Your task to perform on an android device: Is it going to rain today? Image 0: 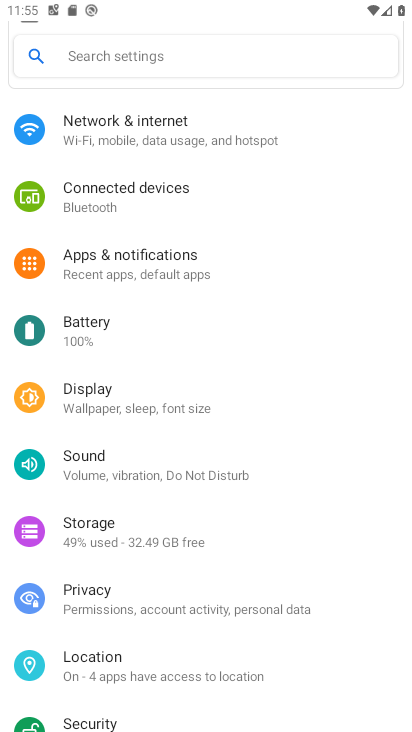
Step 0: press home button
Your task to perform on an android device: Is it going to rain today? Image 1: 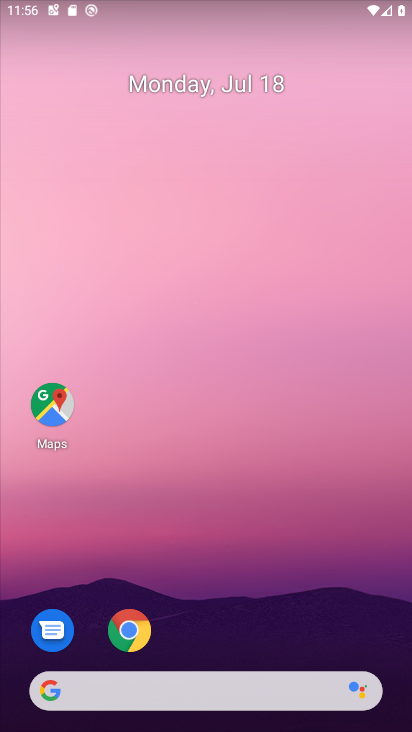
Step 1: drag from (229, 631) to (221, 32)
Your task to perform on an android device: Is it going to rain today? Image 2: 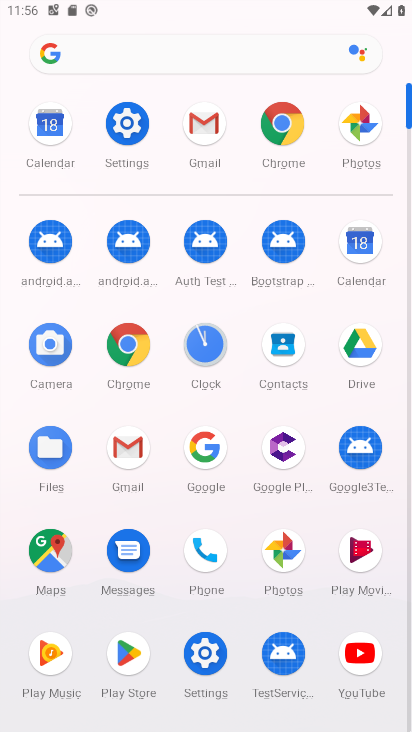
Step 2: click (212, 67)
Your task to perform on an android device: Is it going to rain today? Image 3: 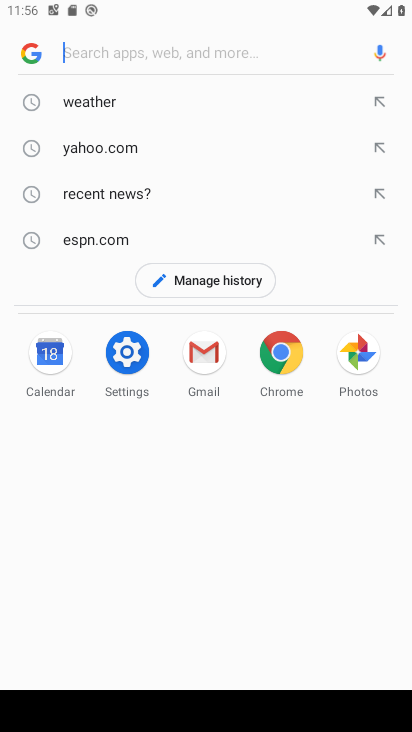
Step 3: click (112, 91)
Your task to perform on an android device: Is it going to rain today? Image 4: 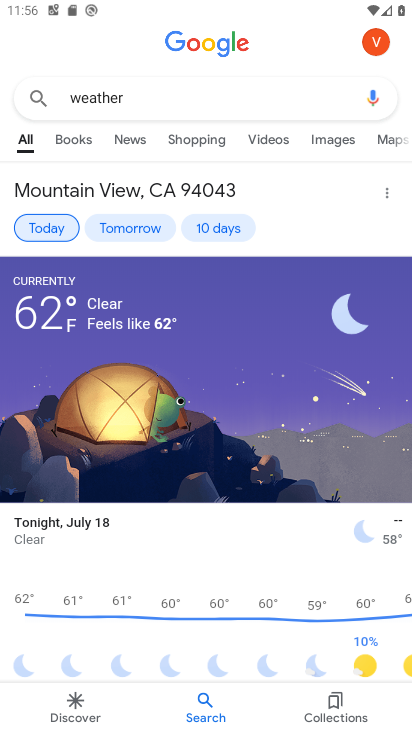
Step 4: task complete